Your task to perform on an android device: Go to sound settings Image 0: 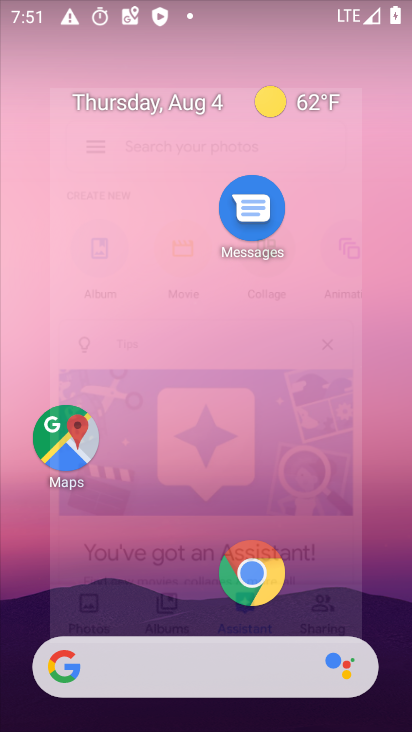
Step 0: drag from (150, 617) to (224, 66)
Your task to perform on an android device: Go to sound settings Image 1: 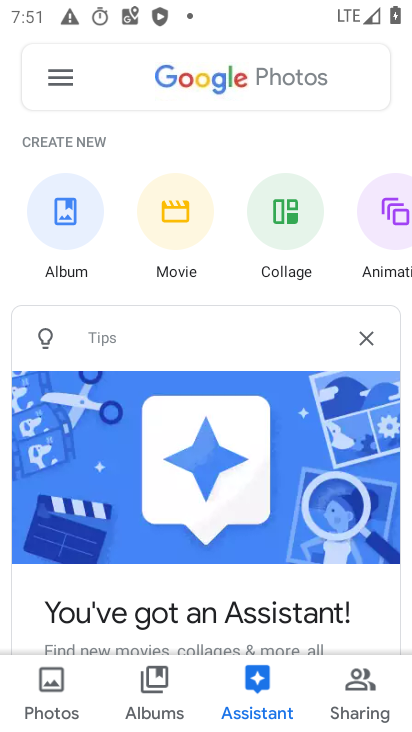
Step 1: press home button
Your task to perform on an android device: Go to sound settings Image 2: 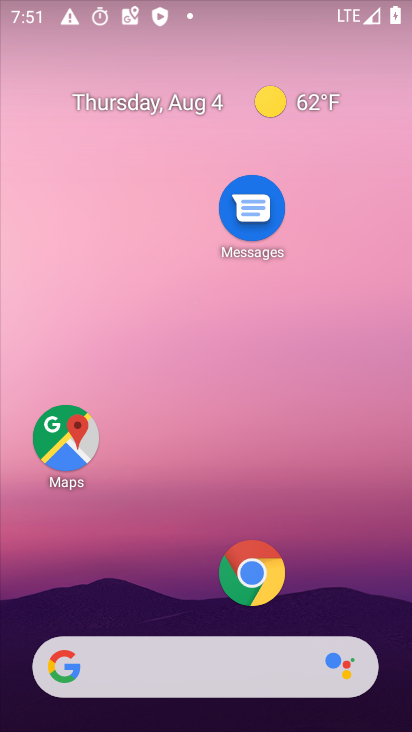
Step 2: drag from (163, 537) to (222, 153)
Your task to perform on an android device: Go to sound settings Image 3: 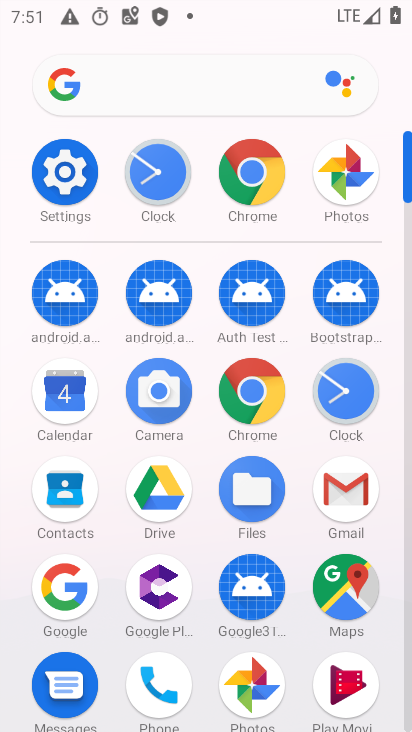
Step 3: click (64, 162)
Your task to perform on an android device: Go to sound settings Image 4: 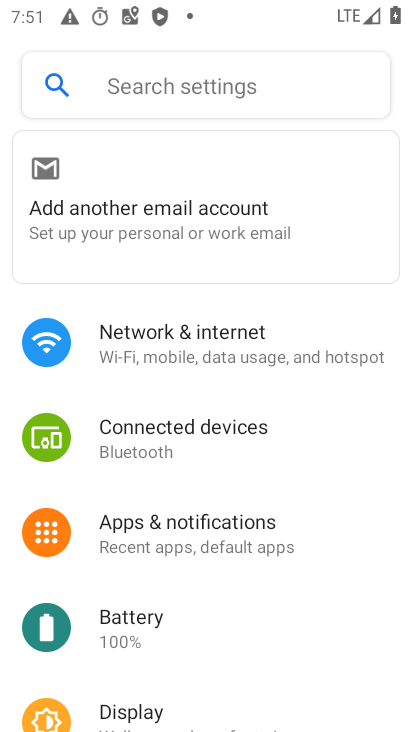
Step 4: drag from (308, 593) to (292, 251)
Your task to perform on an android device: Go to sound settings Image 5: 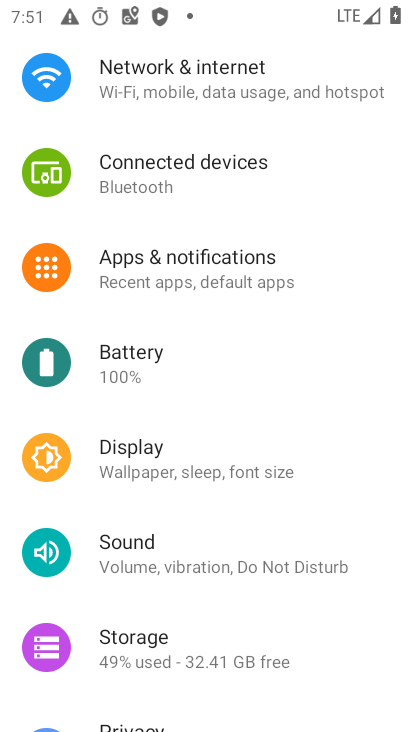
Step 5: click (132, 558)
Your task to perform on an android device: Go to sound settings Image 6: 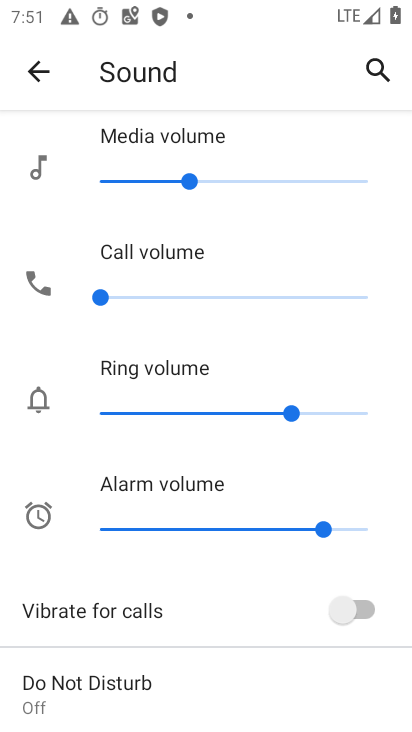
Step 6: task complete